Your task to perform on an android device: Open internet settings Image 0: 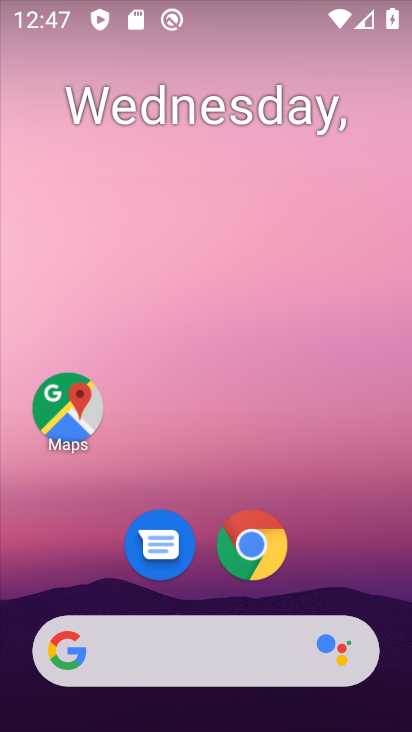
Step 0: drag from (333, 490) to (265, 118)
Your task to perform on an android device: Open internet settings Image 1: 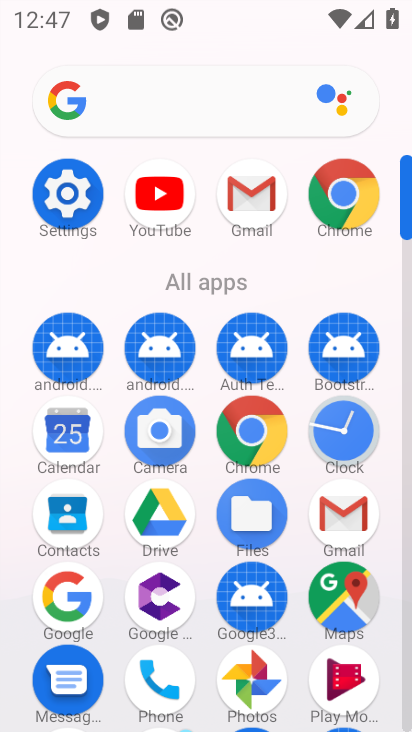
Step 1: click (72, 204)
Your task to perform on an android device: Open internet settings Image 2: 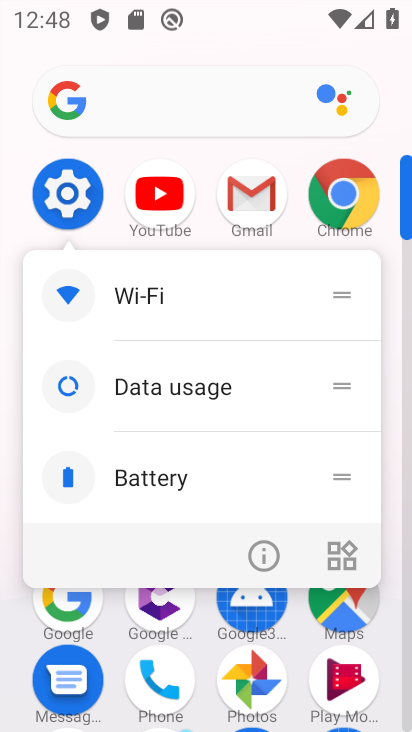
Step 2: click (72, 204)
Your task to perform on an android device: Open internet settings Image 3: 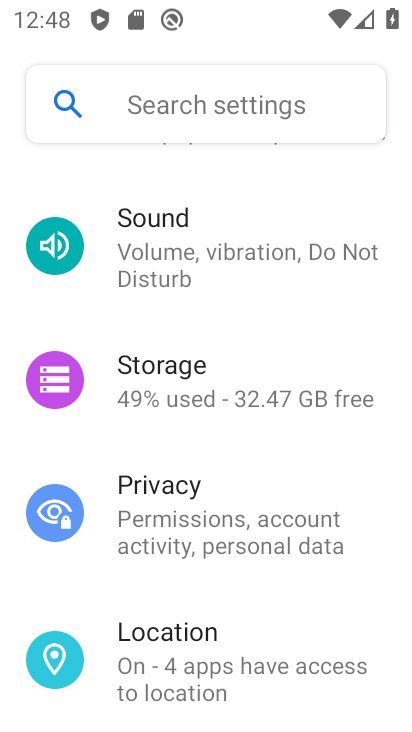
Step 3: drag from (172, 257) to (292, 696)
Your task to perform on an android device: Open internet settings Image 4: 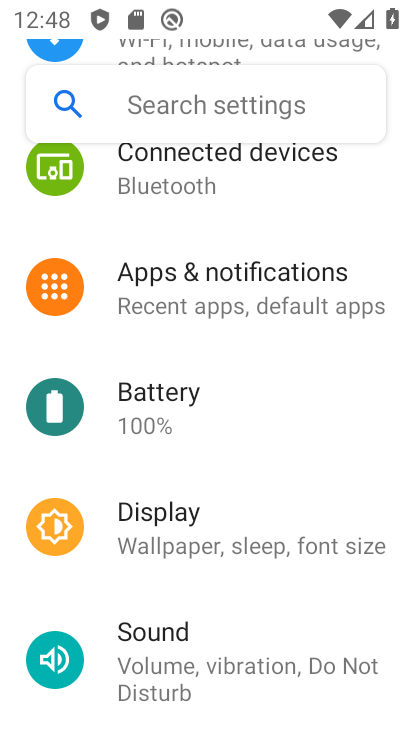
Step 4: drag from (193, 226) to (162, 642)
Your task to perform on an android device: Open internet settings Image 5: 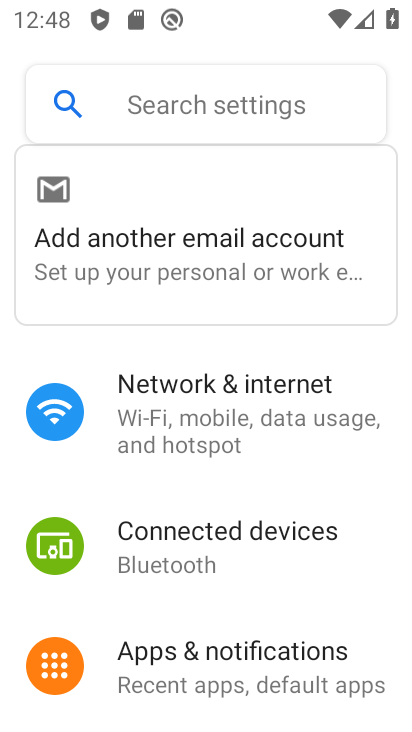
Step 5: click (110, 417)
Your task to perform on an android device: Open internet settings Image 6: 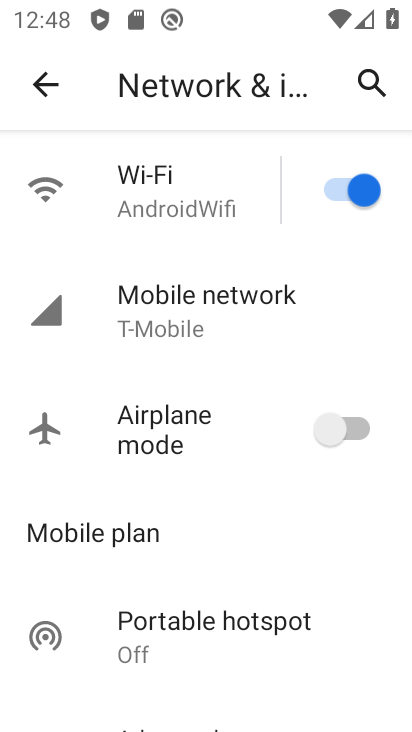
Step 6: task complete